Your task to perform on an android device: open app "DuckDuckGo Privacy Browser" Image 0: 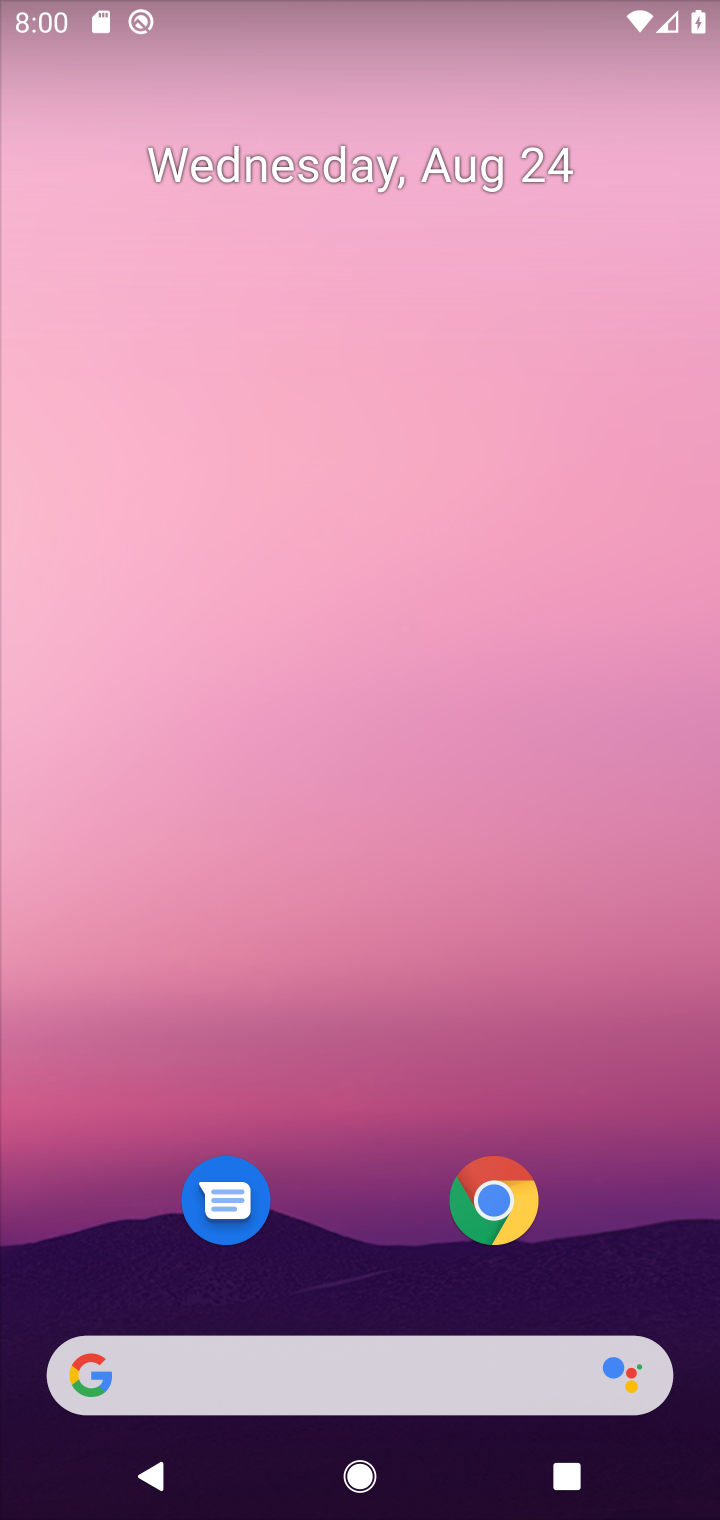
Step 0: drag from (312, 711) to (402, 1)
Your task to perform on an android device: open app "DuckDuckGo Privacy Browser" Image 1: 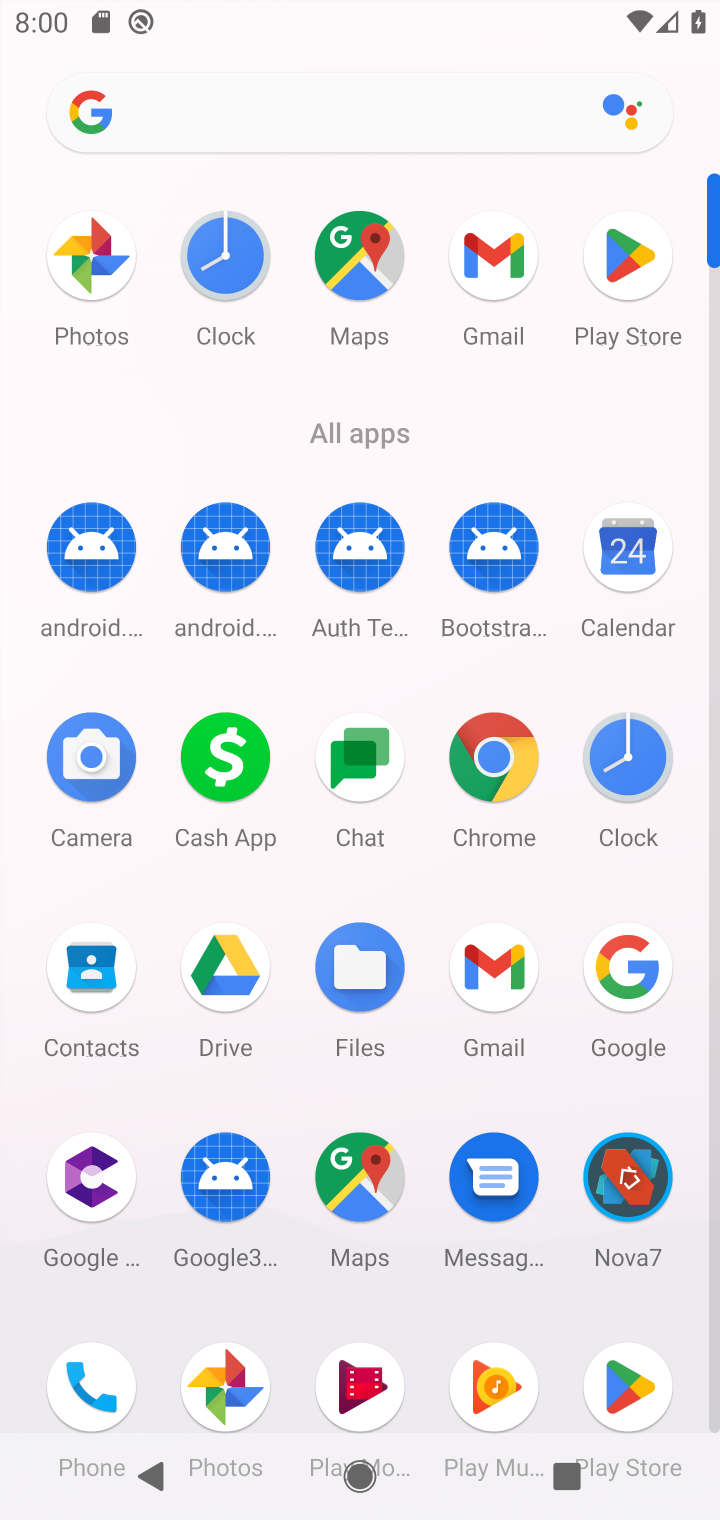
Step 1: click (648, 278)
Your task to perform on an android device: open app "DuckDuckGo Privacy Browser" Image 2: 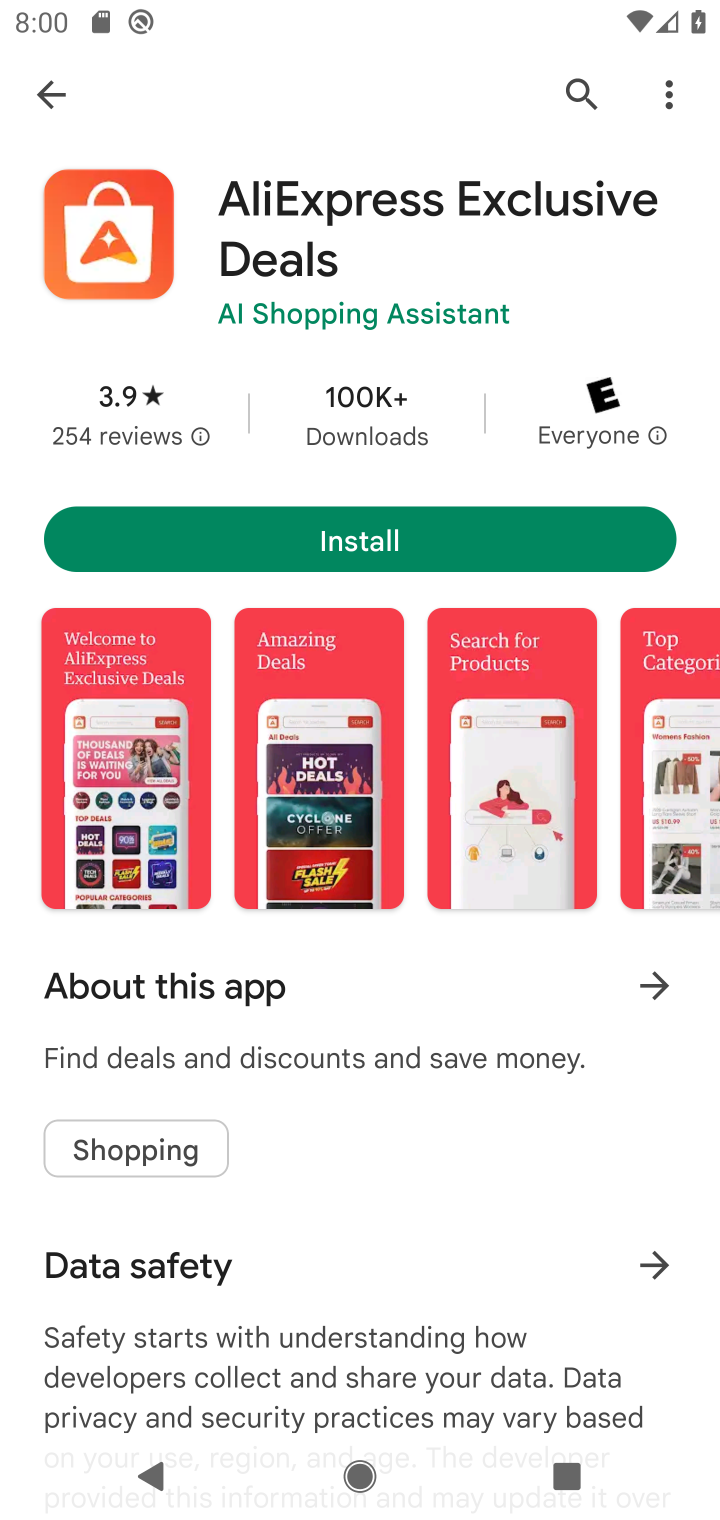
Step 2: click (42, 83)
Your task to perform on an android device: open app "DuckDuckGo Privacy Browser" Image 3: 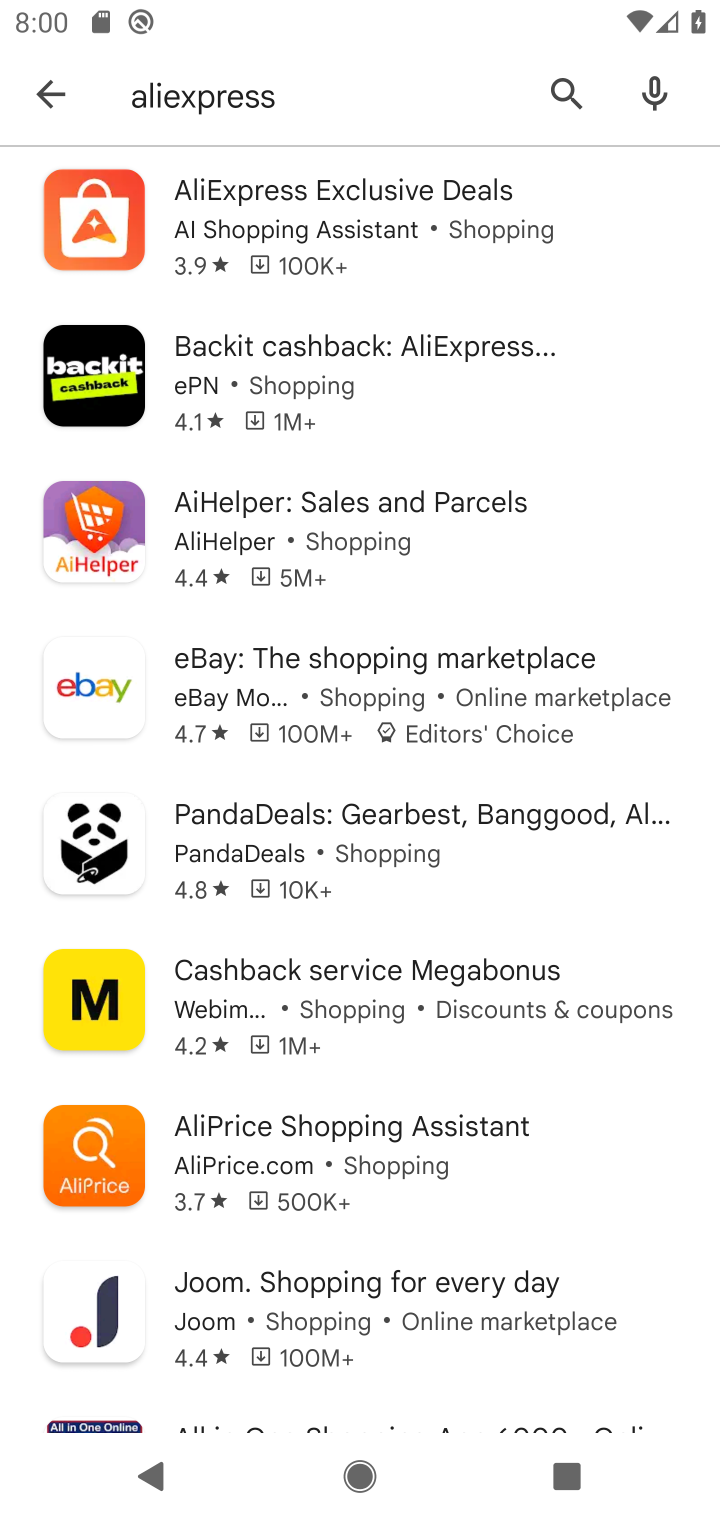
Step 3: click (326, 118)
Your task to perform on an android device: open app "DuckDuckGo Privacy Browser" Image 4: 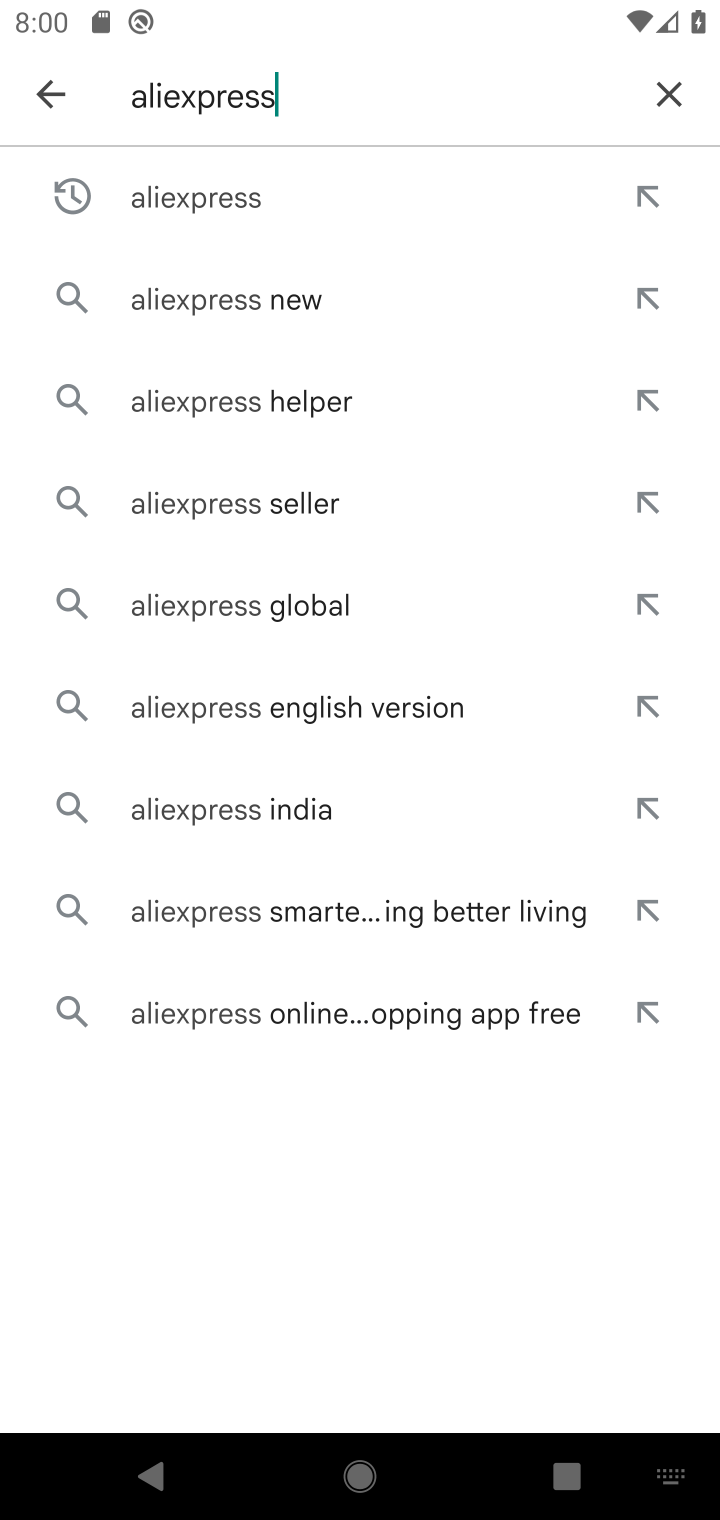
Step 4: click (671, 86)
Your task to perform on an android device: open app "DuckDuckGo Privacy Browser" Image 5: 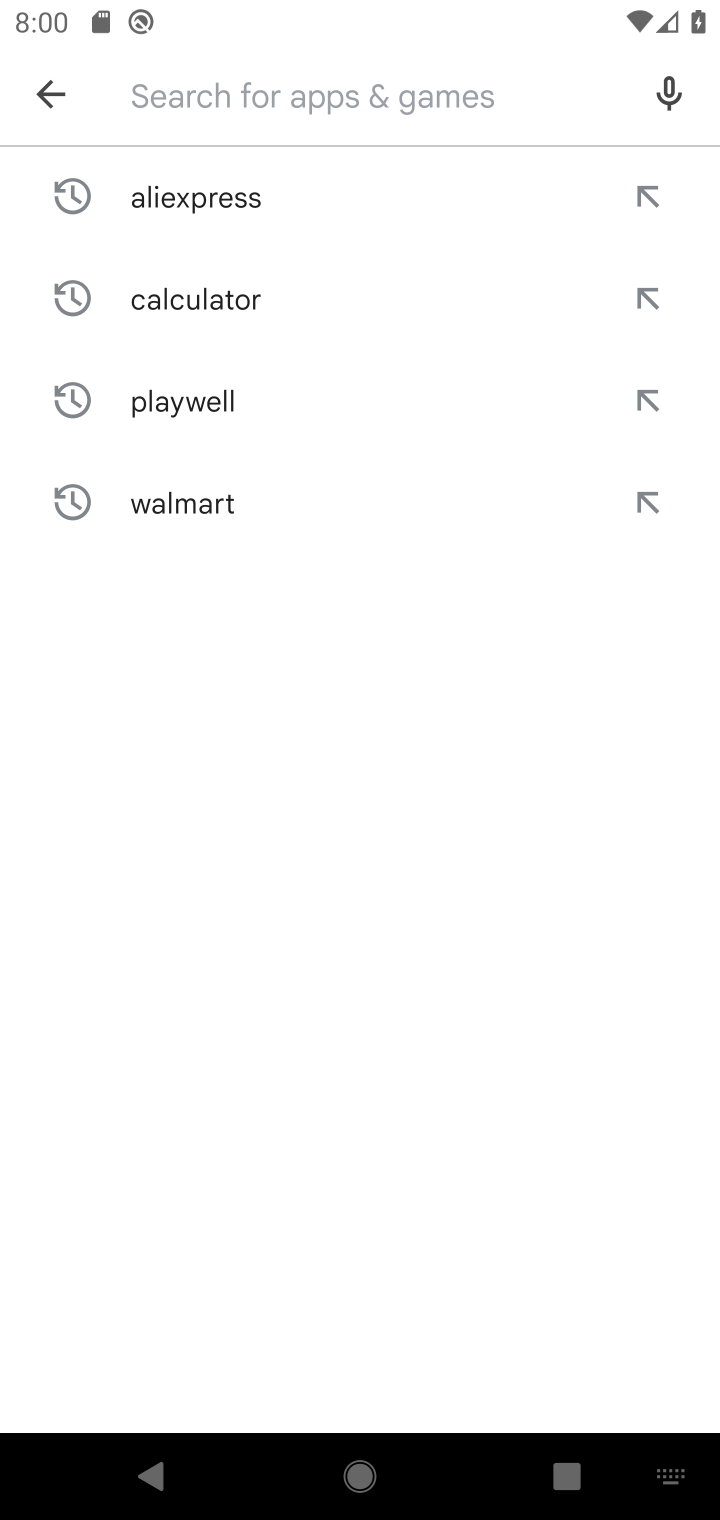
Step 5: type "duckduckgo"
Your task to perform on an android device: open app "DuckDuckGo Privacy Browser" Image 6: 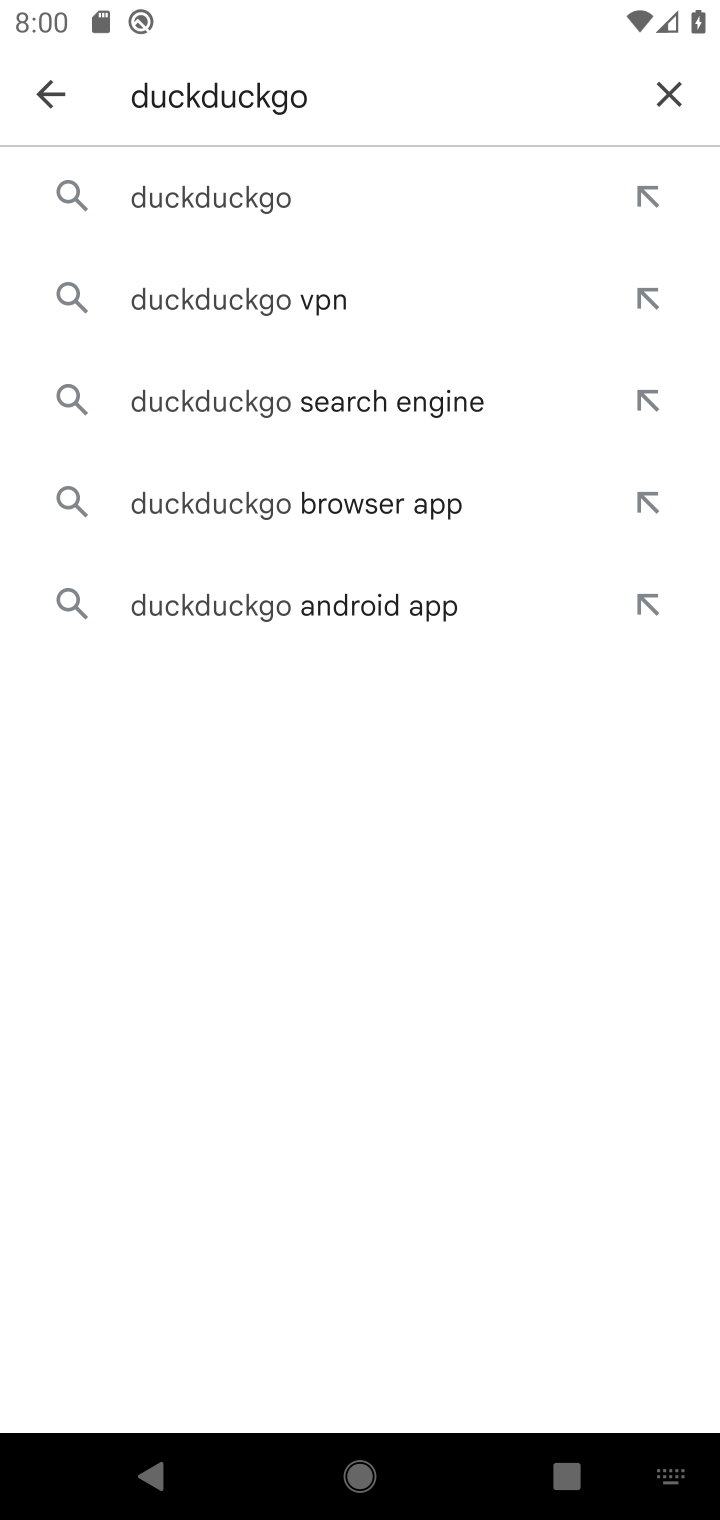
Step 6: click (305, 208)
Your task to perform on an android device: open app "DuckDuckGo Privacy Browser" Image 7: 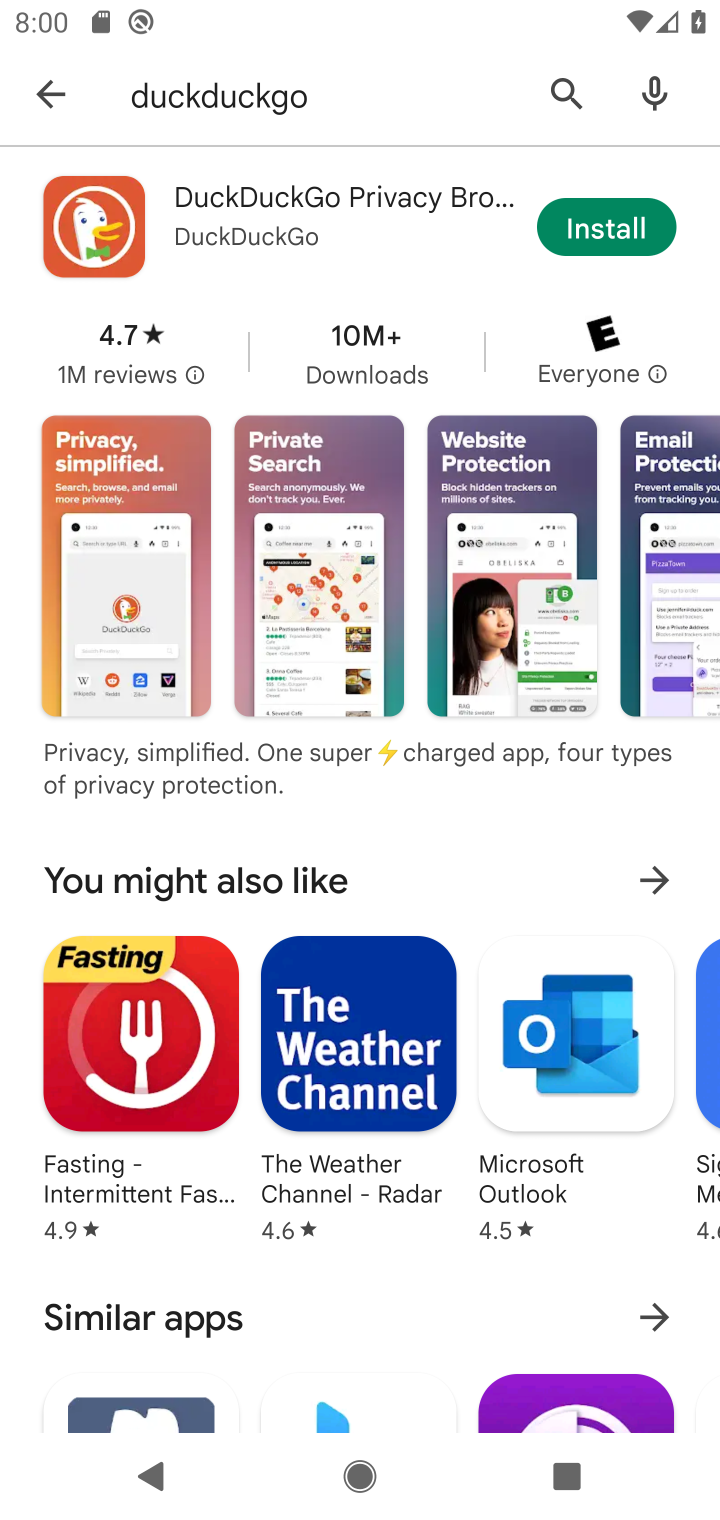
Step 7: task complete